Your task to perform on an android device: Open Chrome and go to settings Image 0: 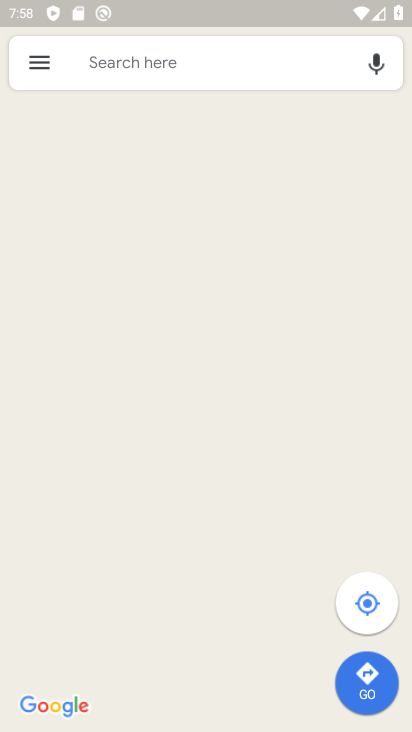
Step 0: press home button
Your task to perform on an android device: Open Chrome and go to settings Image 1: 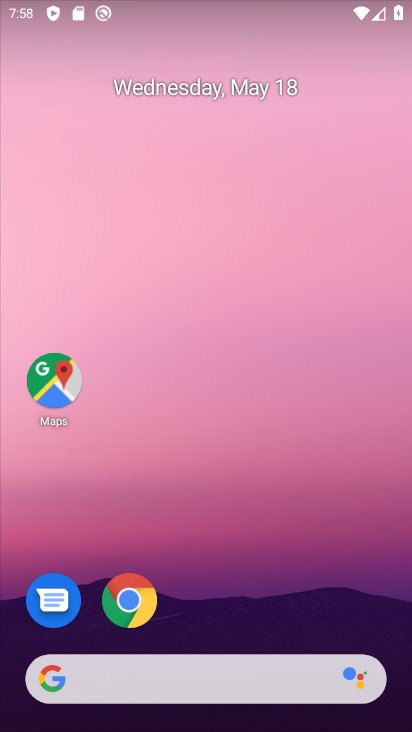
Step 1: click (132, 598)
Your task to perform on an android device: Open Chrome and go to settings Image 2: 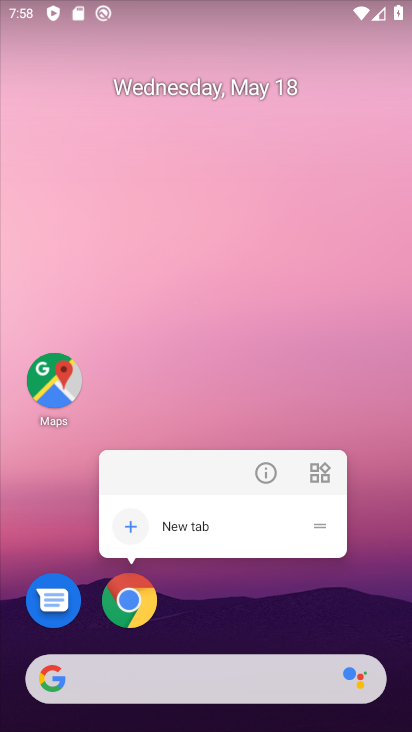
Step 2: click (121, 602)
Your task to perform on an android device: Open Chrome and go to settings Image 3: 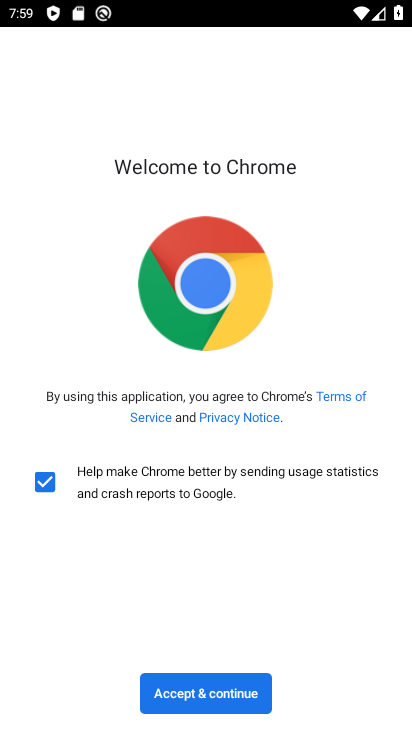
Step 3: click (184, 691)
Your task to perform on an android device: Open Chrome and go to settings Image 4: 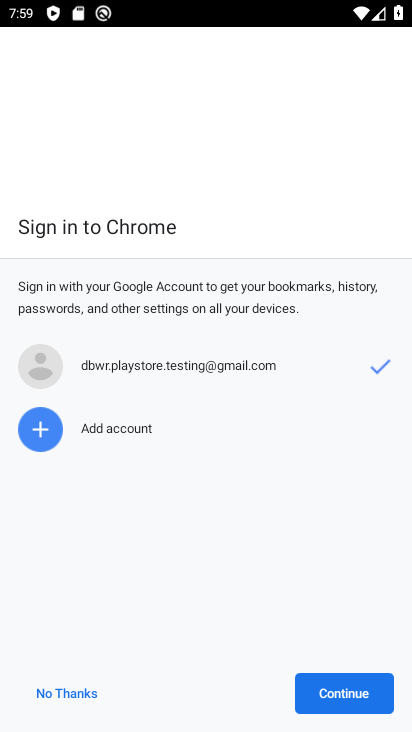
Step 4: click (84, 687)
Your task to perform on an android device: Open Chrome and go to settings Image 5: 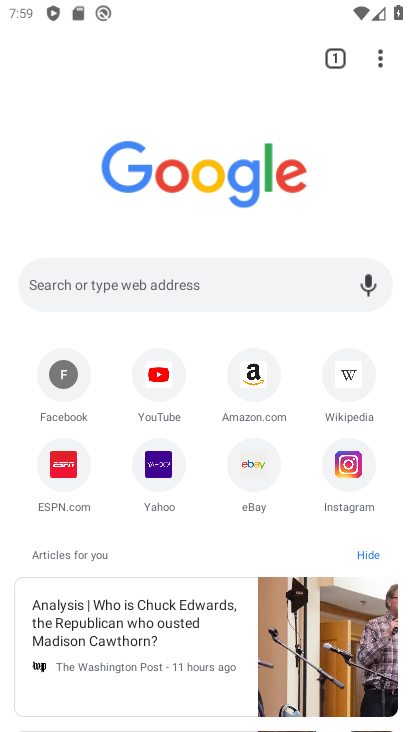
Step 5: click (381, 54)
Your task to perform on an android device: Open Chrome and go to settings Image 6: 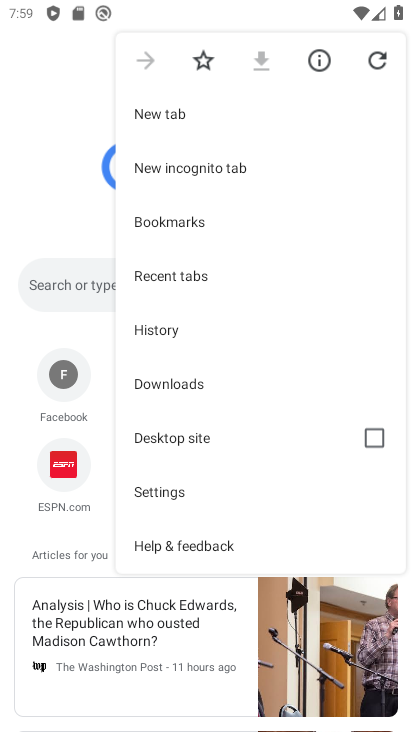
Step 6: click (159, 490)
Your task to perform on an android device: Open Chrome and go to settings Image 7: 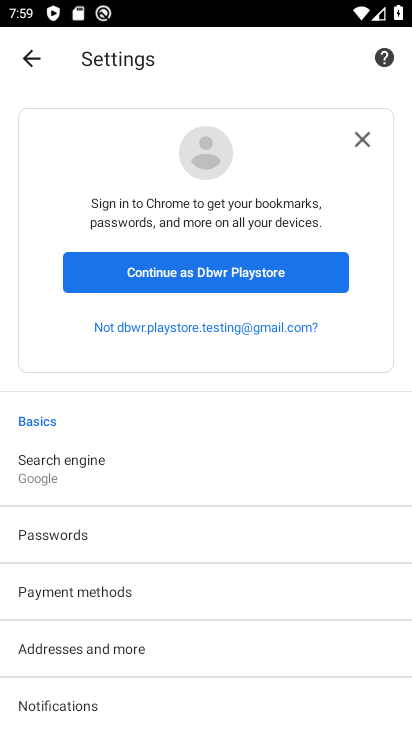
Step 7: click (367, 142)
Your task to perform on an android device: Open Chrome and go to settings Image 8: 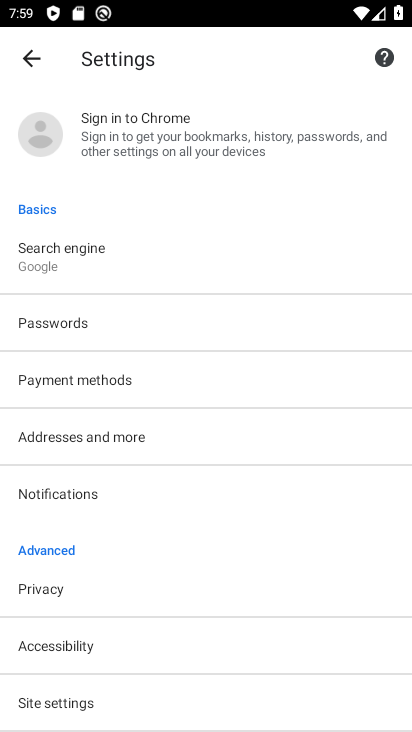
Step 8: task complete